Your task to perform on an android device: Go to Reddit.com Image 0: 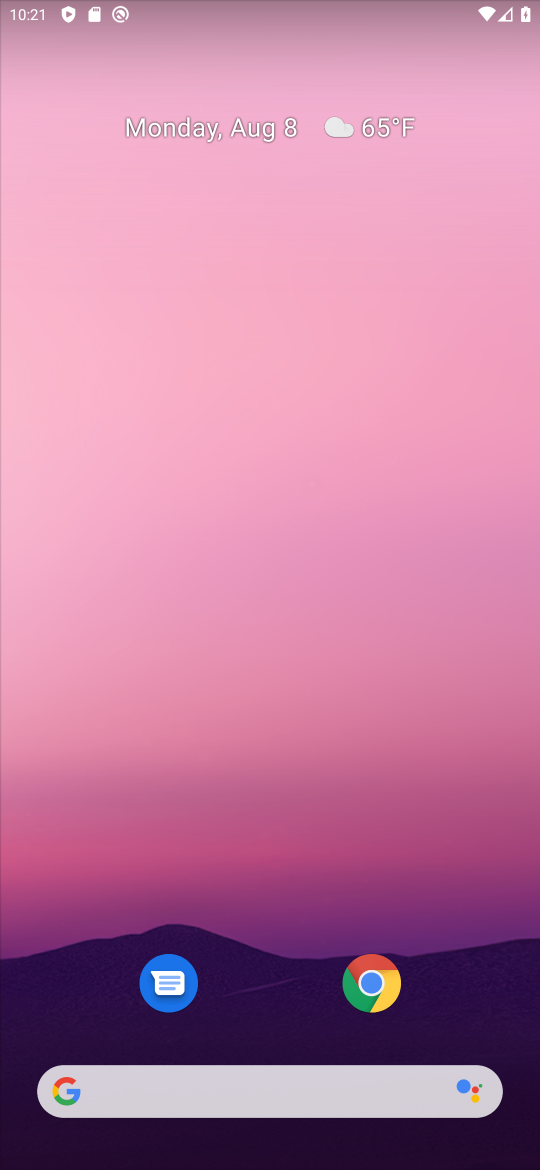
Step 0: drag from (306, 1026) to (248, 113)
Your task to perform on an android device: Go to Reddit.com Image 1: 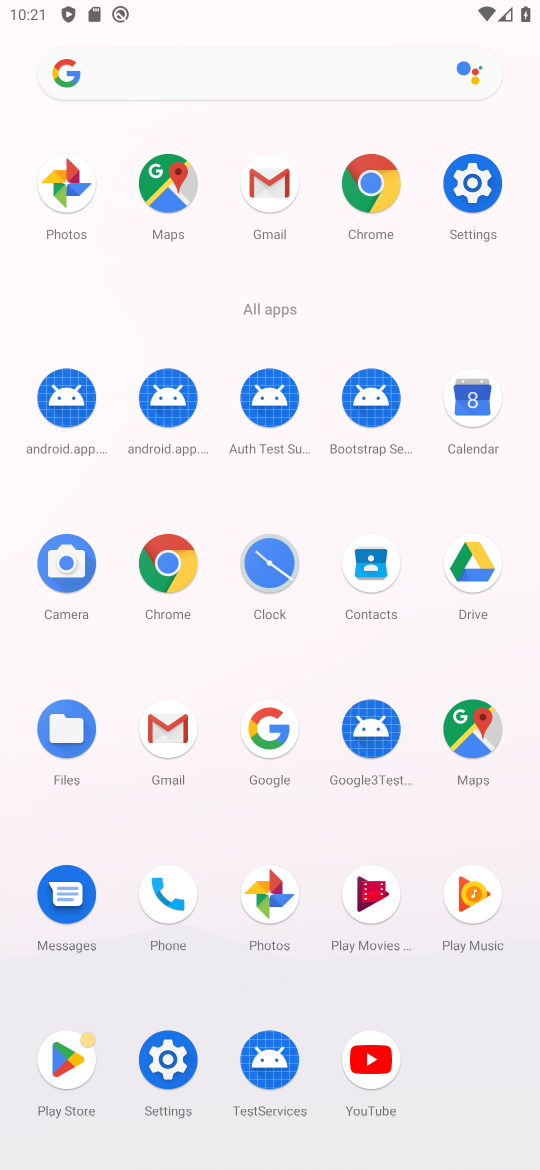
Step 1: click (349, 186)
Your task to perform on an android device: Go to Reddit.com Image 2: 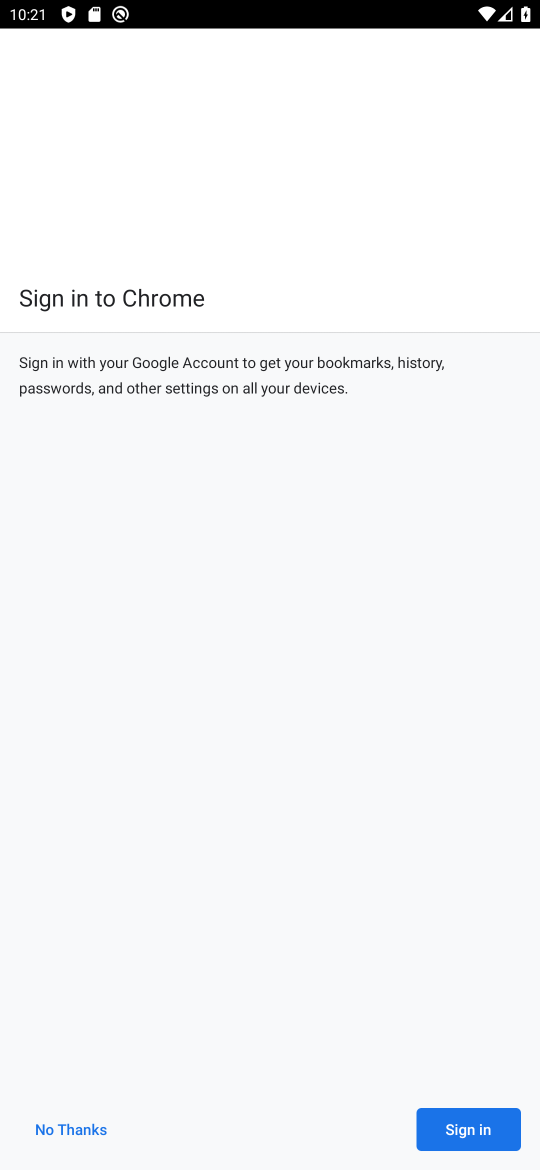
Step 2: click (101, 1135)
Your task to perform on an android device: Go to Reddit.com Image 3: 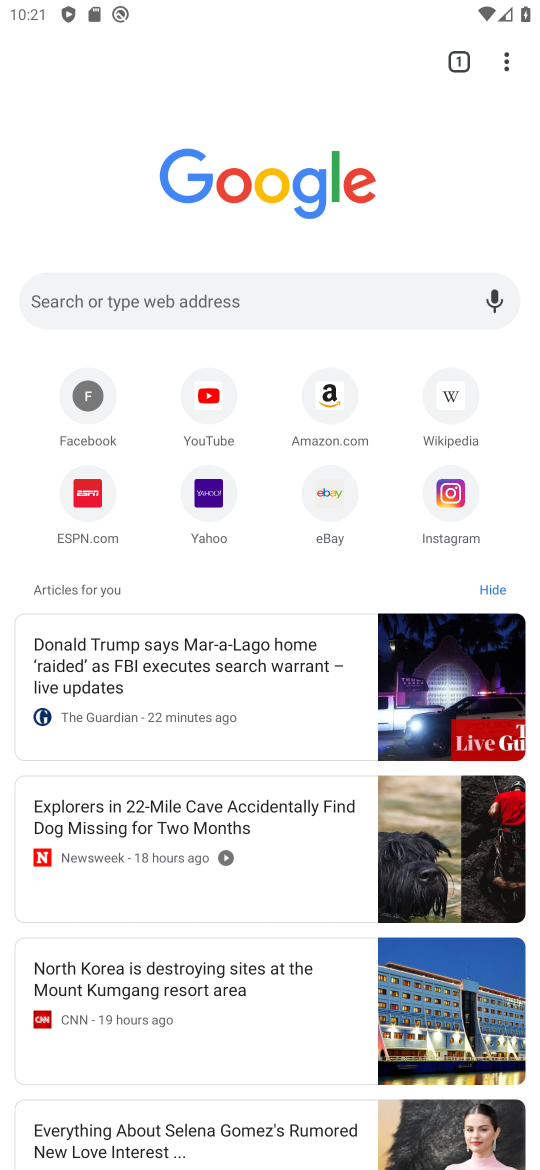
Step 3: click (328, 290)
Your task to perform on an android device: Go to Reddit.com Image 4: 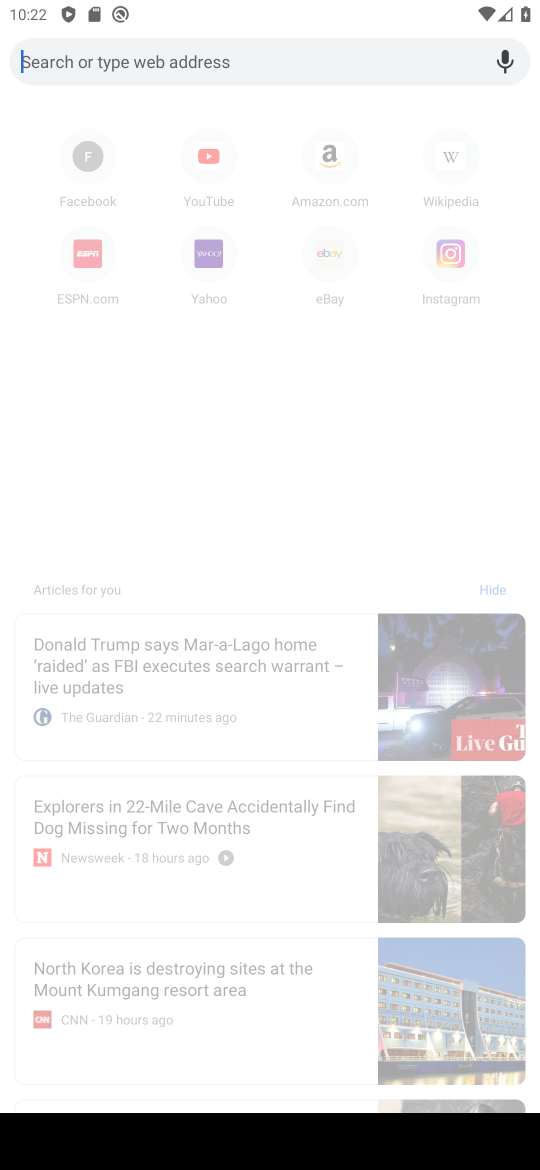
Step 4: type "reddit.com"
Your task to perform on an android device: Go to Reddit.com Image 5: 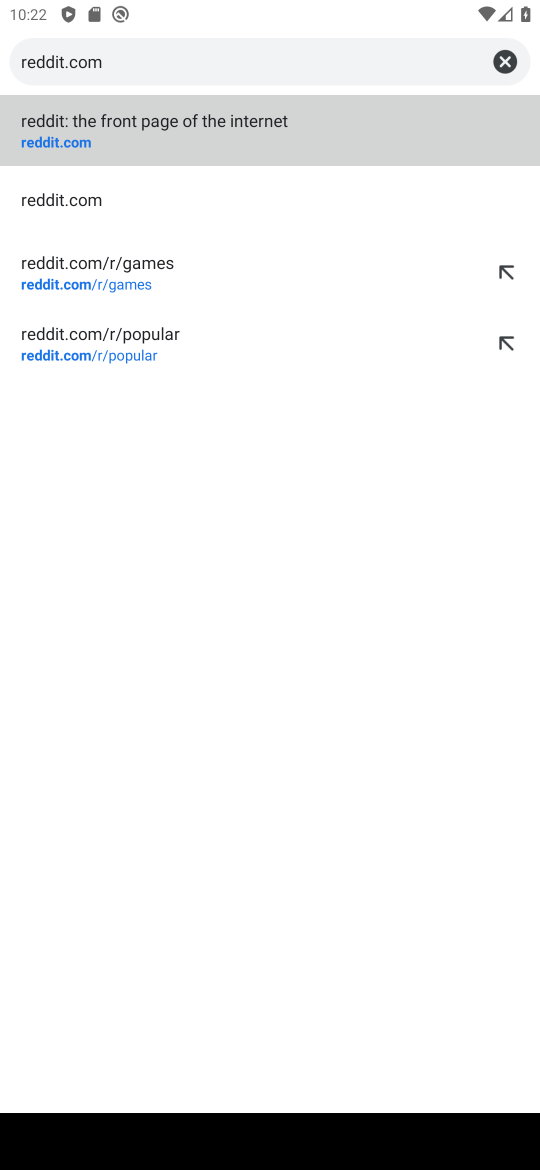
Step 5: click (75, 128)
Your task to perform on an android device: Go to Reddit.com Image 6: 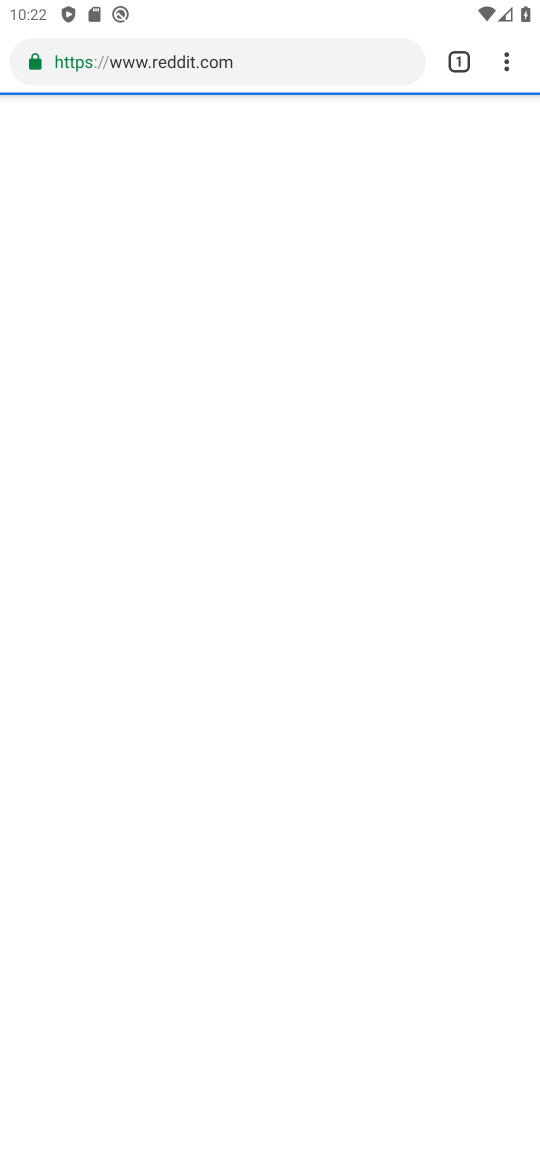
Step 6: task complete